Your task to perform on an android device: Search for Italian restaurants on Maps Image 0: 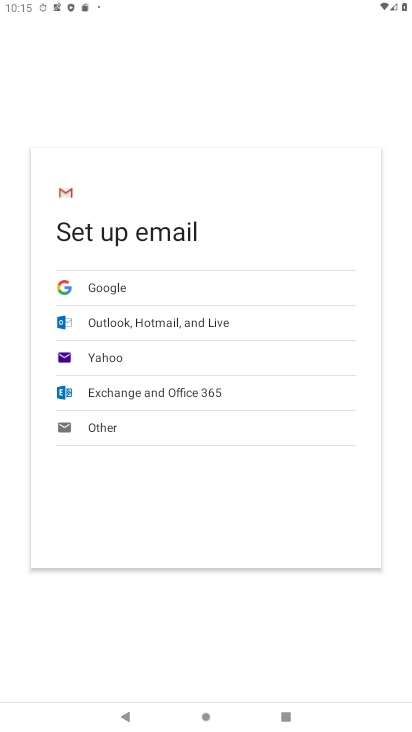
Step 0: press home button
Your task to perform on an android device: Search for Italian restaurants on Maps Image 1: 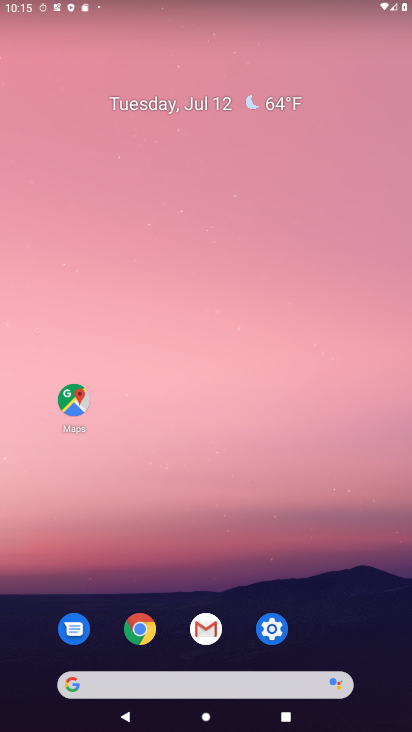
Step 1: click (89, 392)
Your task to perform on an android device: Search for Italian restaurants on Maps Image 2: 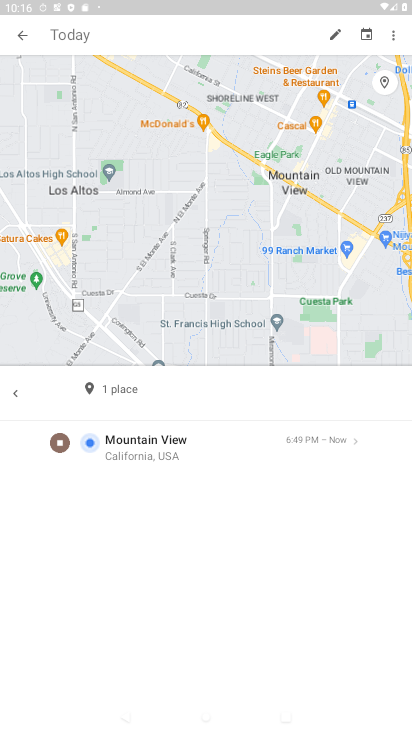
Step 2: click (21, 37)
Your task to perform on an android device: Search for Italian restaurants on Maps Image 3: 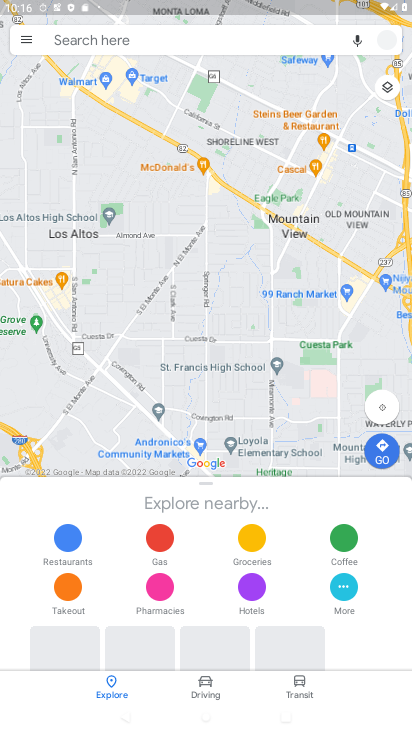
Step 3: click (138, 46)
Your task to perform on an android device: Search for Italian restaurants on Maps Image 4: 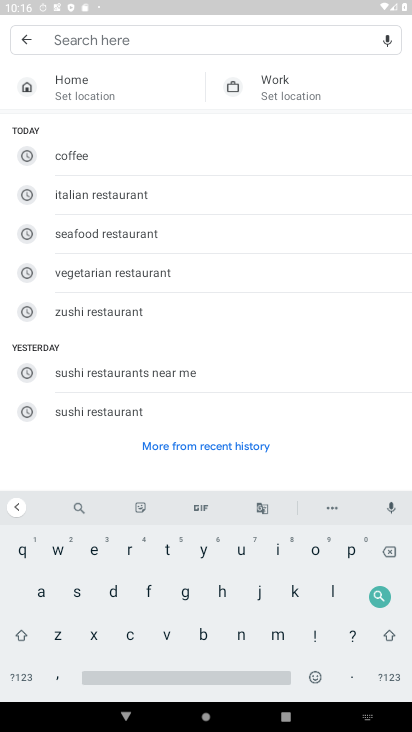
Step 4: click (132, 196)
Your task to perform on an android device: Search for Italian restaurants on Maps Image 5: 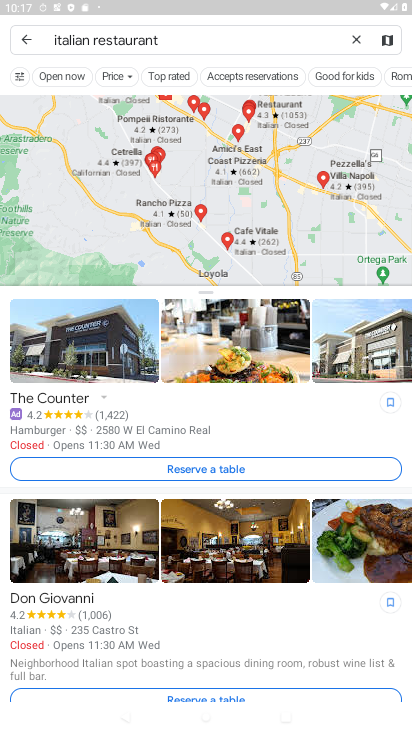
Step 5: task complete